Your task to perform on an android device: visit the assistant section in the google photos Image 0: 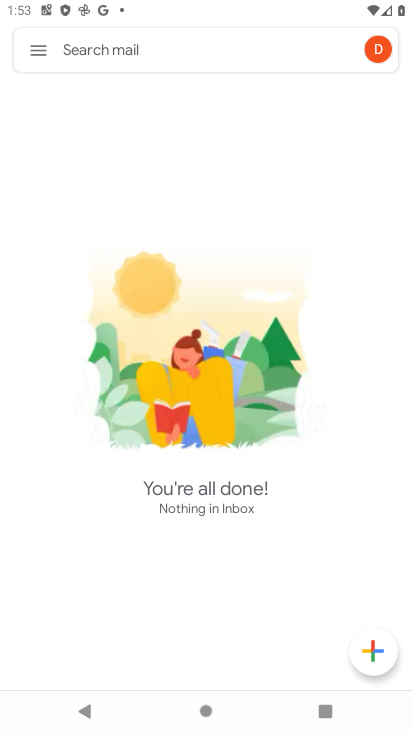
Step 0: press home button
Your task to perform on an android device: visit the assistant section in the google photos Image 1: 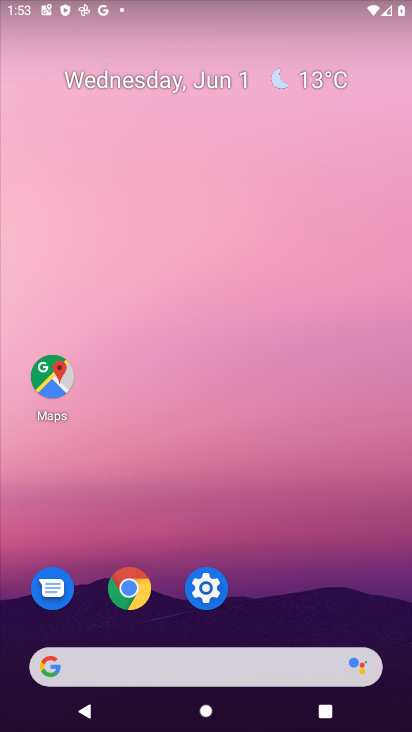
Step 1: drag from (232, 682) to (208, 116)
Your task to perform on an android device: visit the assistant section in the google photos Image 2: 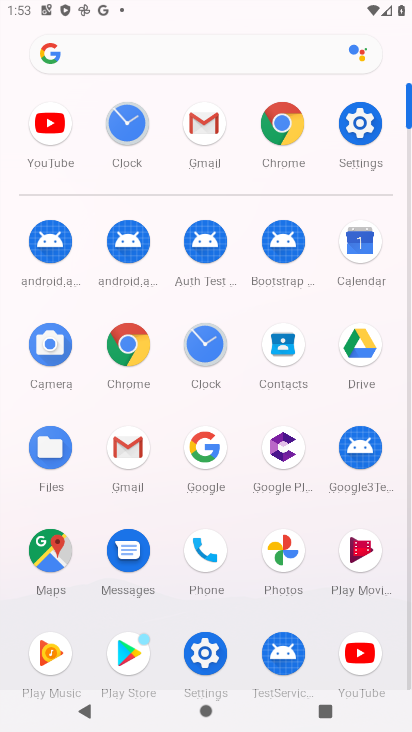
Step 2: click (285, 549)
Your task to perform on an android device: visit the assistant section in the google photos Image 3: 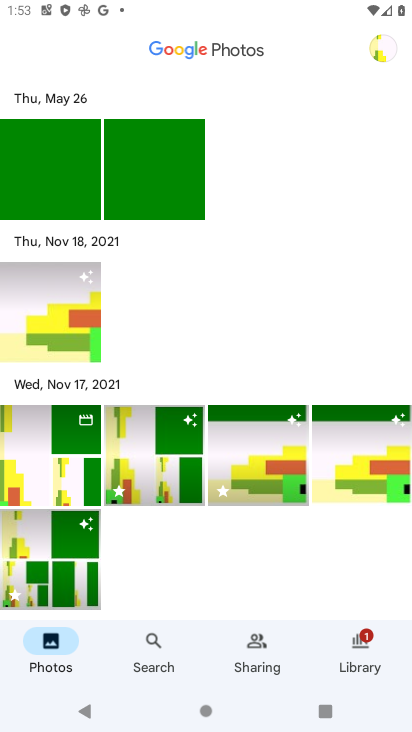
Step 3: click (381, 45)
Your task to perform on an android device: visit the assistant section in the google photos Image 4: 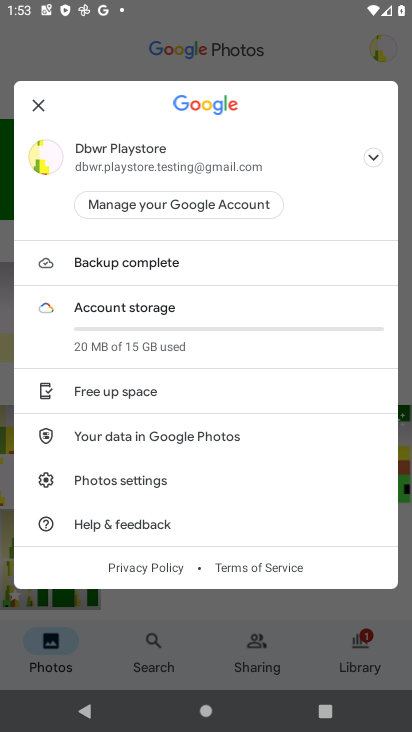
Step 4: drag from (215, 483) to (217, 384)
Your task to perform on an android device: visit the assistant section in the google photos Image 5: 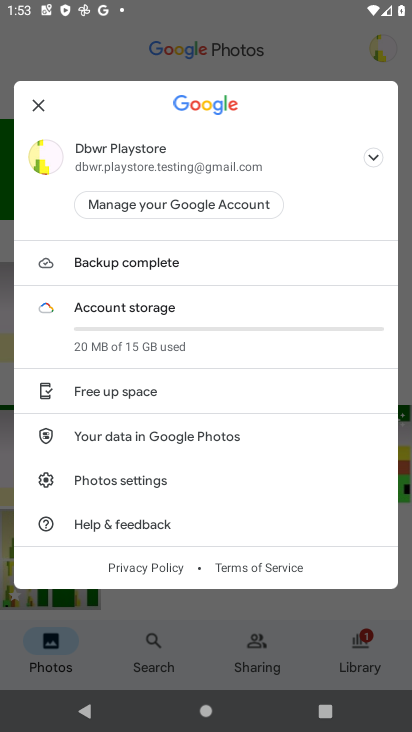
Step 5: click (119, 478)
Your task to perform on an android device: visit the assistant section in the google photos Image 6: 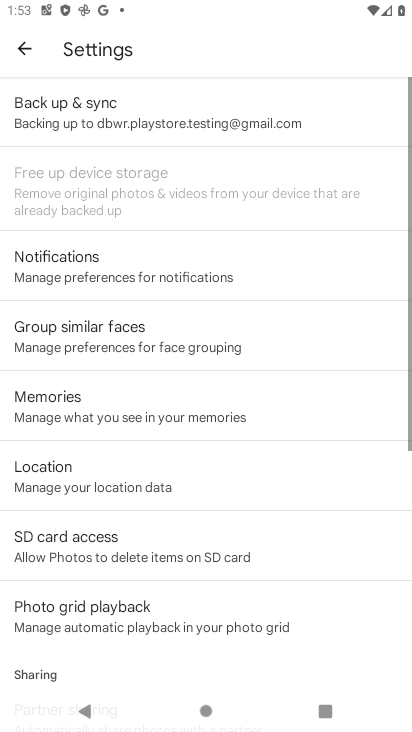
Step 6: task complete